Your task to perform on an android device: Search for the best rated wireless headphones on Amazon. Image 0: 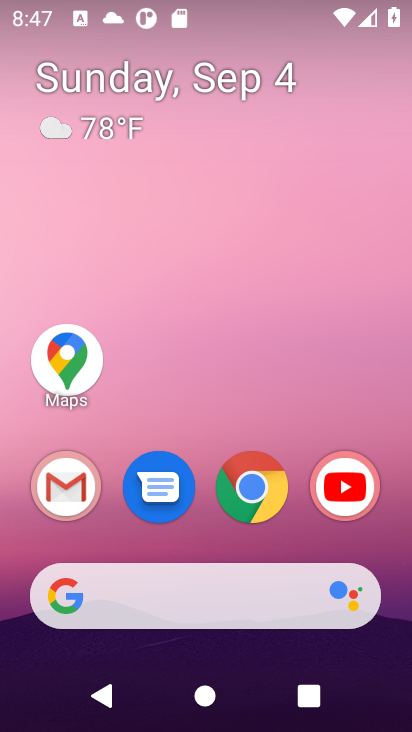
Step 0: click (252, 492)
Your task to perform on an android device: Search for the best rated wireless headphones on Amazon. Image 1: 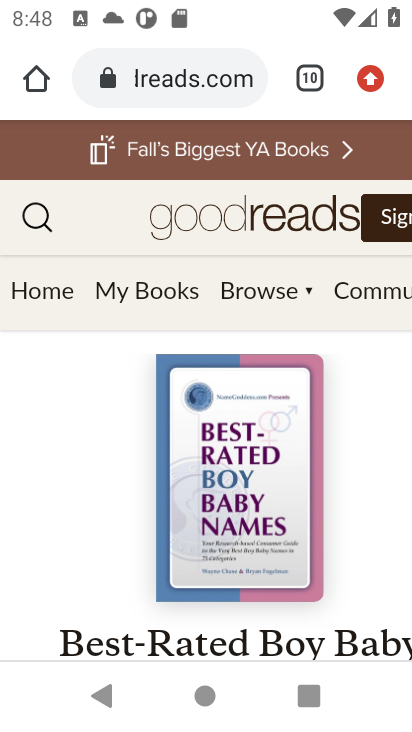
Step 1: click (33, 67)
Your task to perform on an android device: Search for the best rated wireless headphones on Amazon. Image 2: 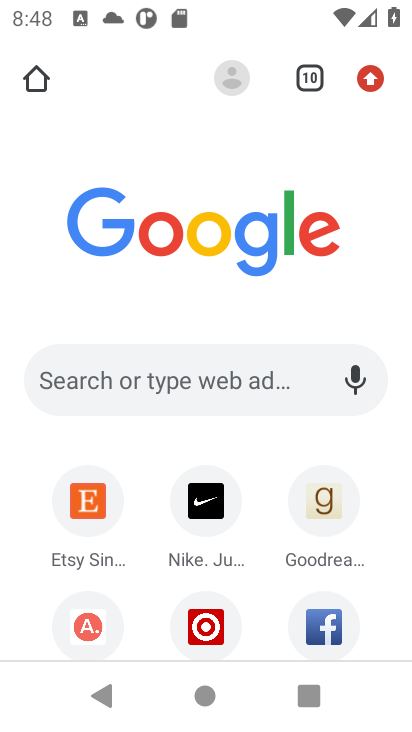
Step 2: click (150, 369)
Your task to perform on an android device: Search for the best rated wireless headphones on Amazon. Image 3: 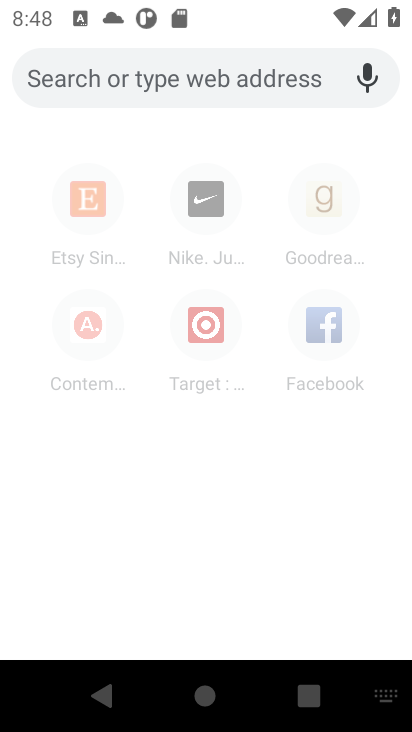
Step 3: type "amazon"
Your task to perform on an android device: Search for the best rated wireless headphones on Amazon. Image 4: 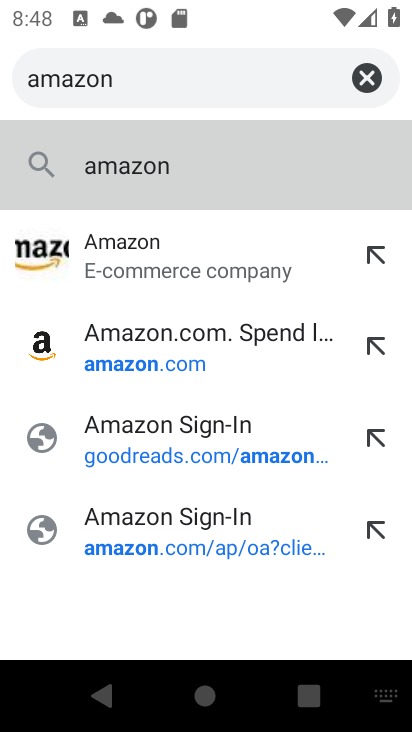
Step 4: click (198, 254)
Your task to perform on an android device: Search for the best rated wireless headphones on Amazon. Image 5: 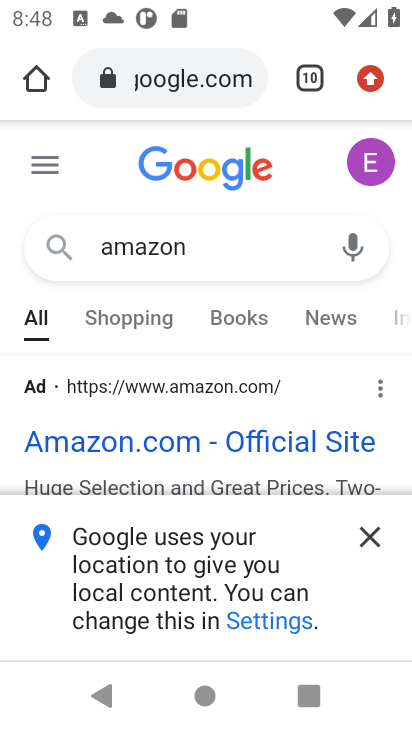
Step 5: click (62, 437)
Your task to perform on an android device: Search for the best rated wireless headphones on Amazon. Image 6: 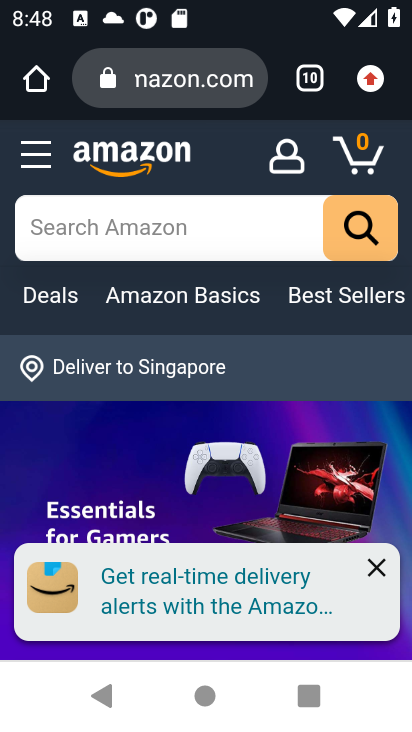
Step 6: click (198, 219)
Your task to perform on an android device: Search for the best rated wireless headphones on Amazon. Image 7: 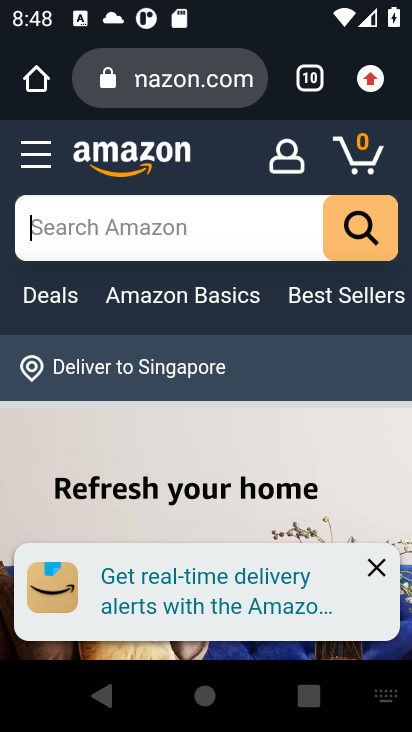
Step 7: type "wireless headphones "
Your task to perform on an android device: Search for the best rated wireless headphones on Amazon. Image 8: 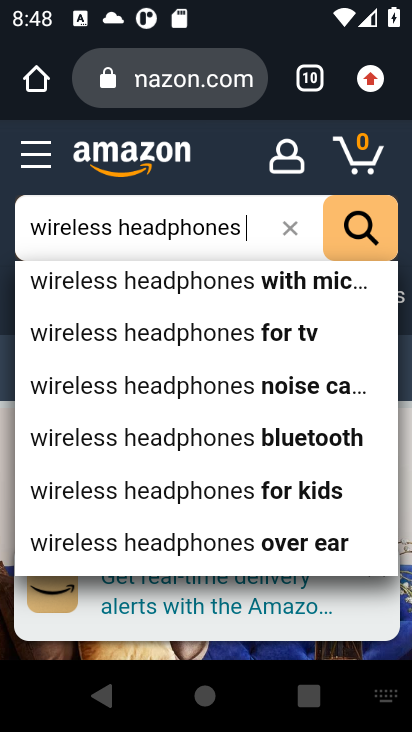
Step 8: click (360, 224)
Your task to perform on an android device: Search for the best rated wireless headphones on Amazon. Image 9: 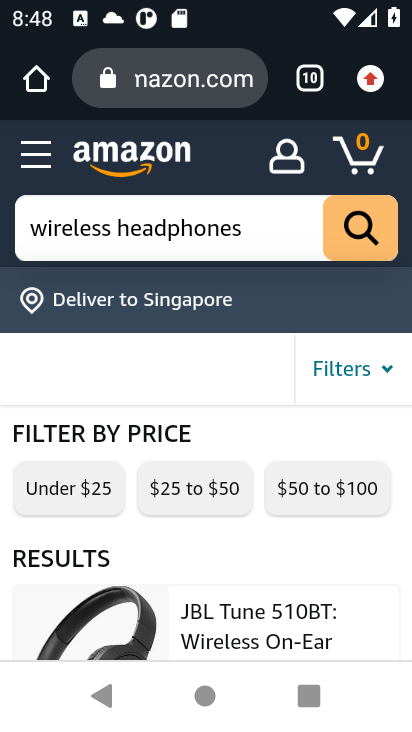
Step 9: click (352, 370)
Your task to perform on an android device: Search for the best rated wireless headphones on Amazon. Image 10: 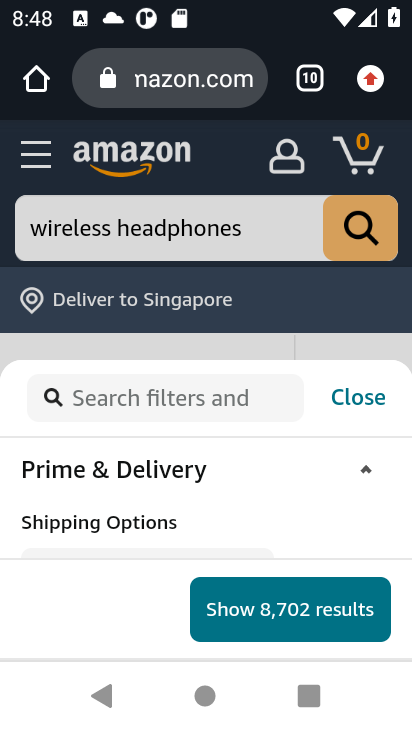
Step 10: drag from (279, 514) to (372, 133)
Your task to perform on an android device: Search for the best rated wireless headphones on Amazon. Image 11: 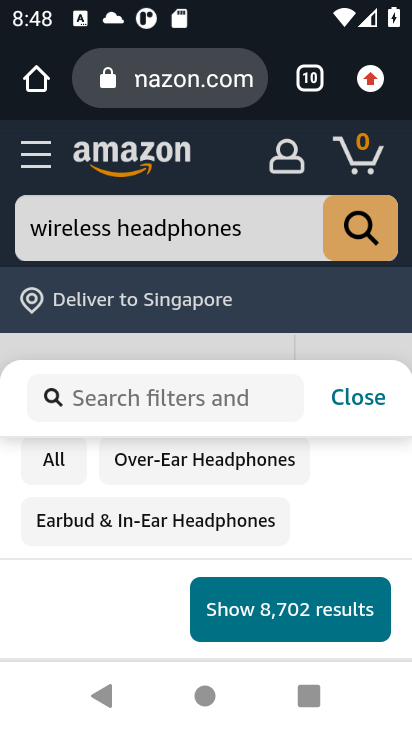
Step 11: drag from (322, 511) to (345, 217)
Your task to perform on an android device: Search for the best rated wireless headphones on Amazon. Image 12: 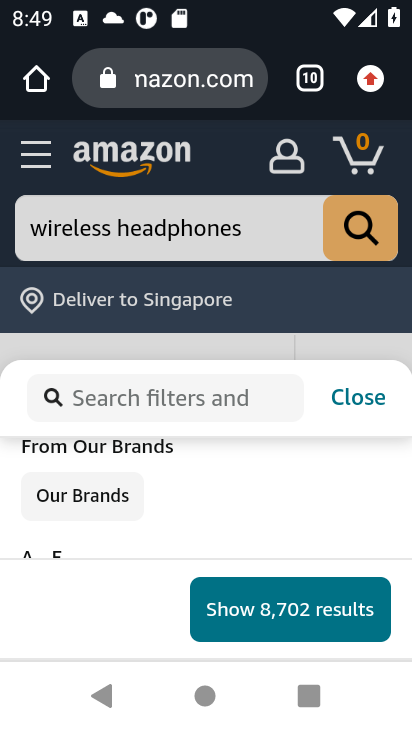
Step 12: drag from (187, 530) to (240, 235)
Your task to perform on an android device: Search for the best rated wireless headphones on Amazon. Image 13: 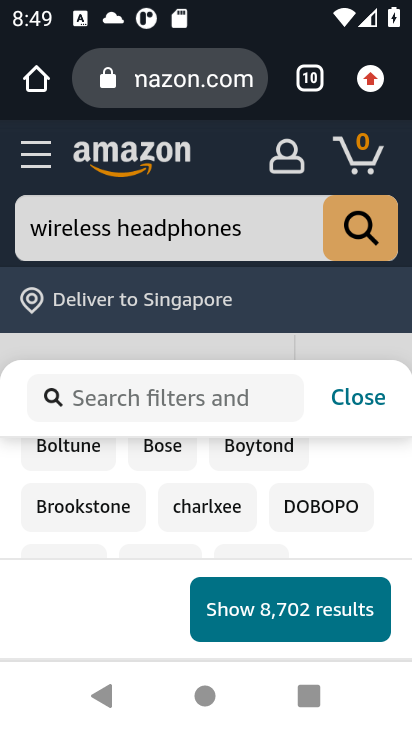
Step 13: drag from (328, 550) to (342, 335)
Your task to perform on an android device: Search for the best rated wireless headphones on Amazon. Image 14: 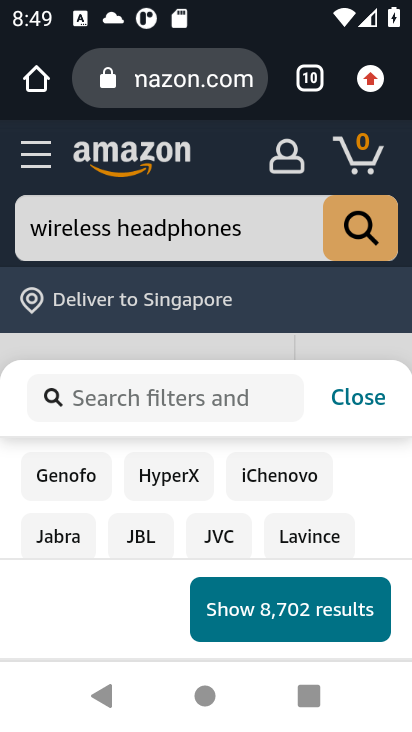
Step 14: drag from (361, 495) to (392, 298)
Your task to perform on an android device: Search for the best rated wireless headphones on Amazon. Image 15: 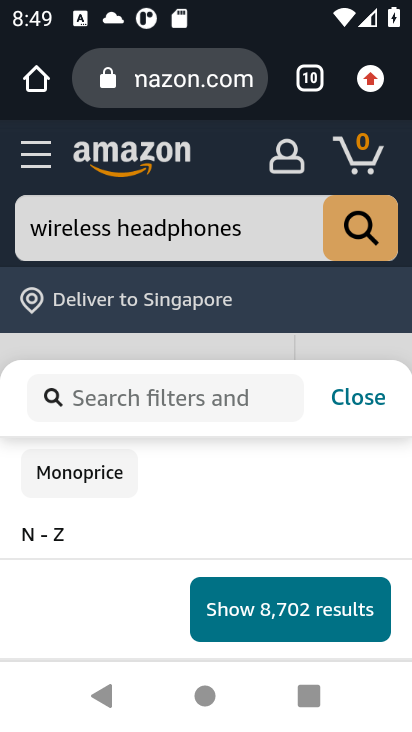
Step 15: drag from (222, 507) to (233, 340)
Your task to perform on an android device: Search for the best rated wireless headphones on Amazon. Image 16: 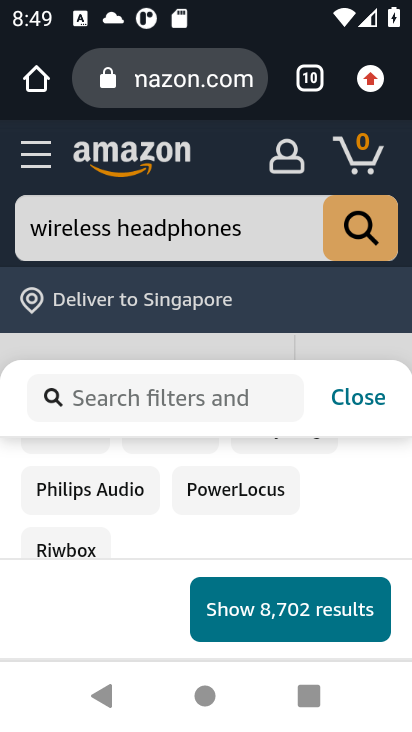
Step 16: drag from (169, 538) to (204, 303)
Your task to perform on an android device: Search for the best rated wireless headphones on Amazon. Image 17: 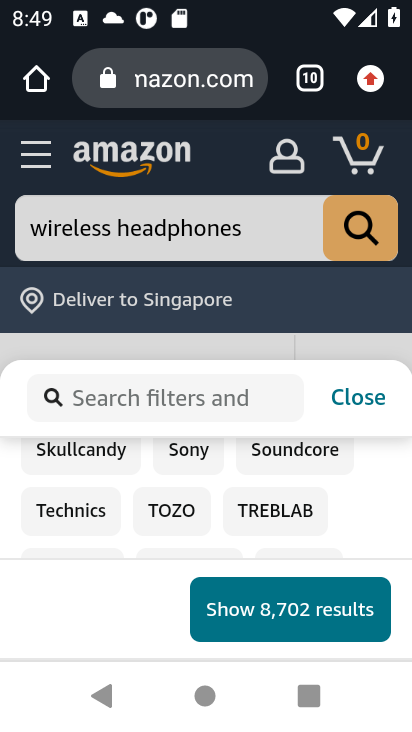
Step 17: click (342, 398)
Your task to perform on an android device: Search for the best rated wireless headphones on Amazon. Image 18: 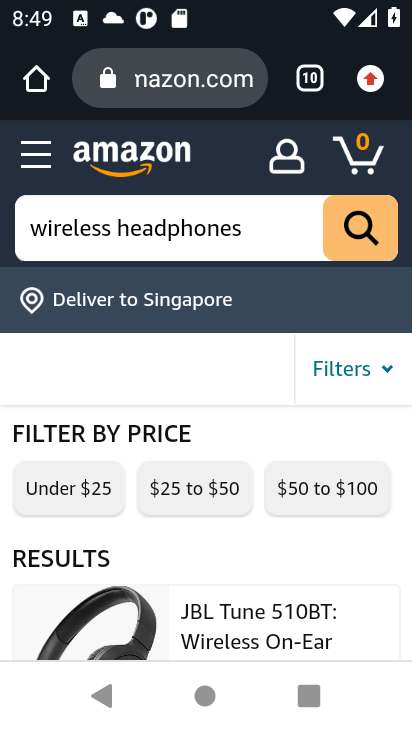
Step 18: click (342, 398)
Your task to perform on an android device: Search for the best rated wireless headphones on Amazon. Image 19: 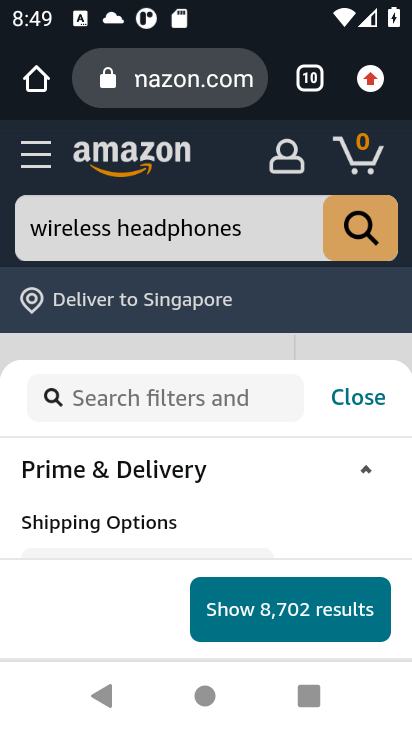
Step 19: drag from (235, 434) to (410, 81)
Your task to perform on an android device: Search for the best rated wireless headphones on Amazon. Image 20: 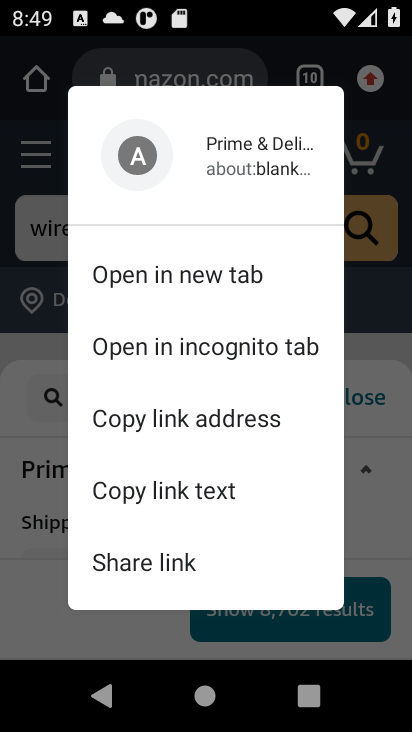
Step 20: click (49, 334)
Your task to perform on an android device: Search for the best rated wireless headphones on Amazon. Image 21: 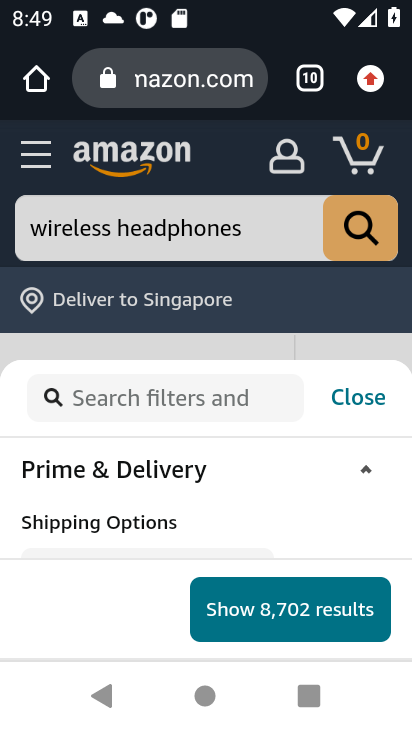
Step 21: click (194, 404)
Your task to perform on an android device: Search for the best rated wireless headphones on Amazon. Image 22: 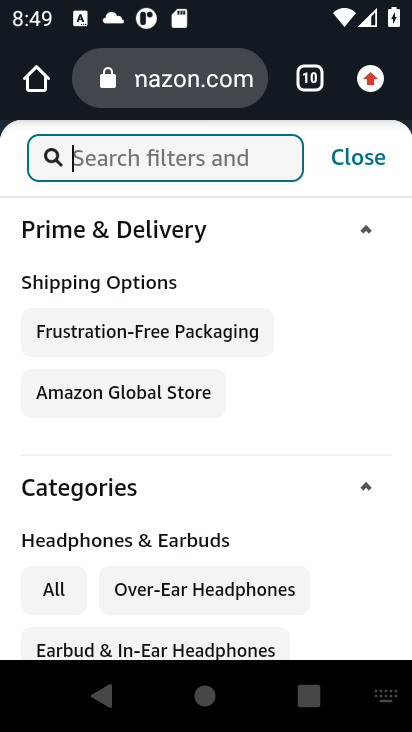
Step 22: type "best rated"
Your task to perform on an android device: Search for the best rated wireless headphones on Amazon. Image 23: 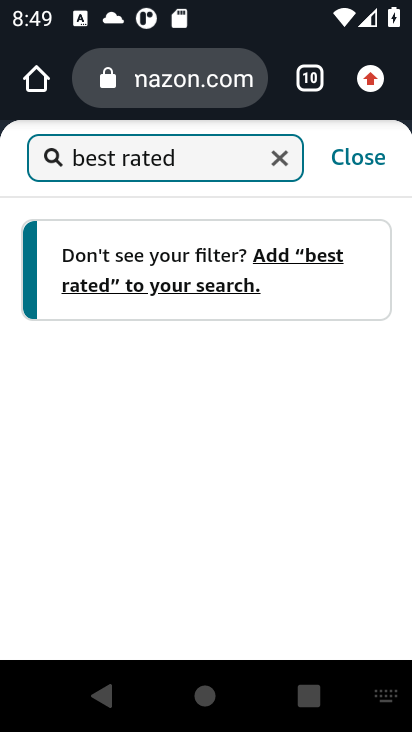
Step 23: click (313, 254)
Your task to perform on an android device: Search for the best rated wireless headphones on Amazon. Image 24: 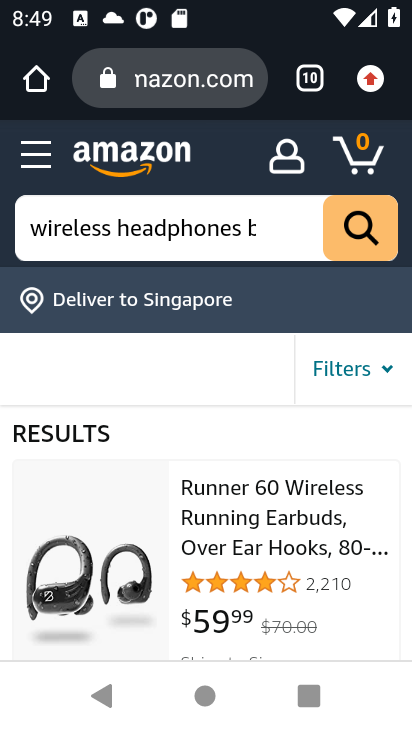
Step 24: task complete